Your task to perform on an android device: turn off picture-in-picture Image 0: 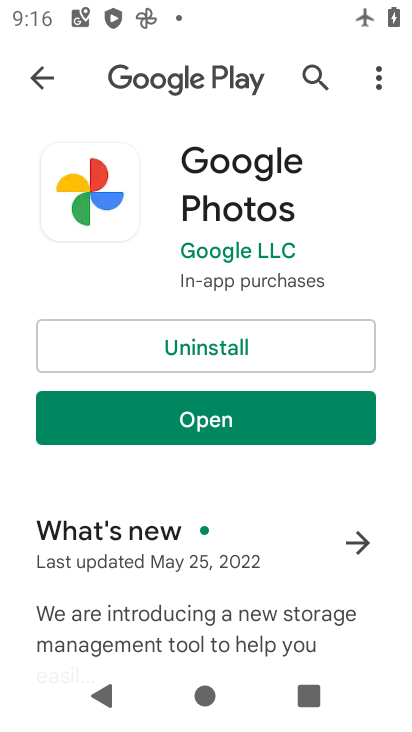
Step 0: press home button
Your task to perform on an android device: turn off picture-in-picture Image 1: 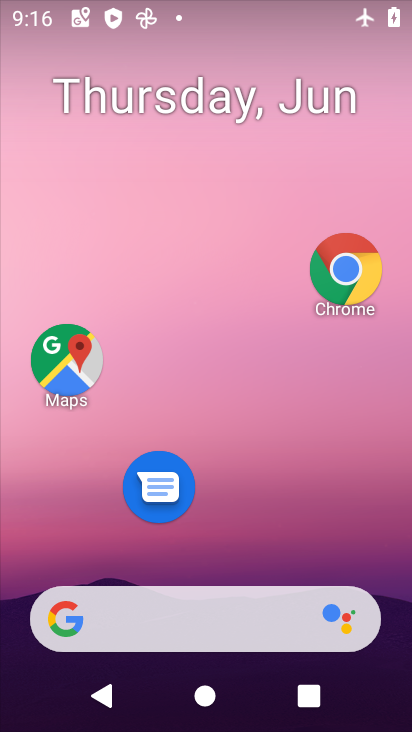
Step 1: drag from (224, 580) to (240, 182)
Your task to perform on an android device: turn off picture-in-picture Image 2: 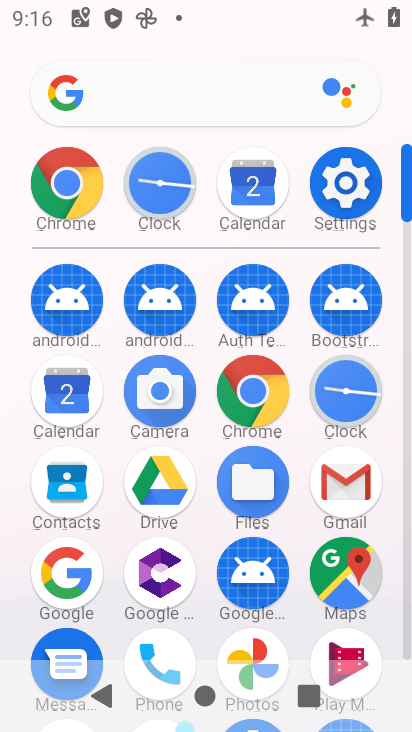
Step 2: click (351, 195)
Your task to perform on an android device: turn off picture-in-picture Image 3: 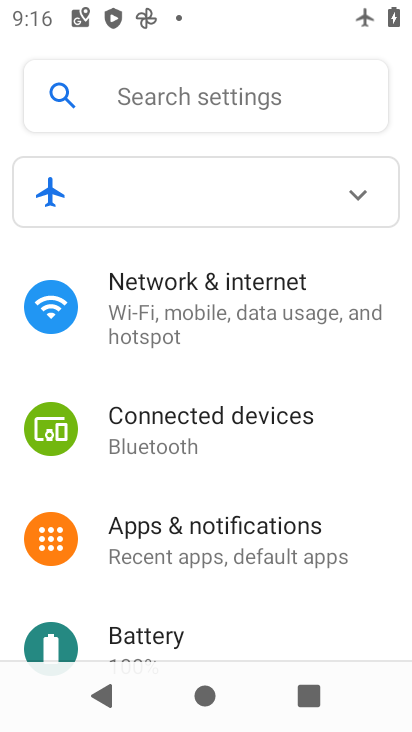
Step 3: drag from (189, 621) to (302, 339)
Your task to perform on an android device: turn off picture-in-picture Image 4: 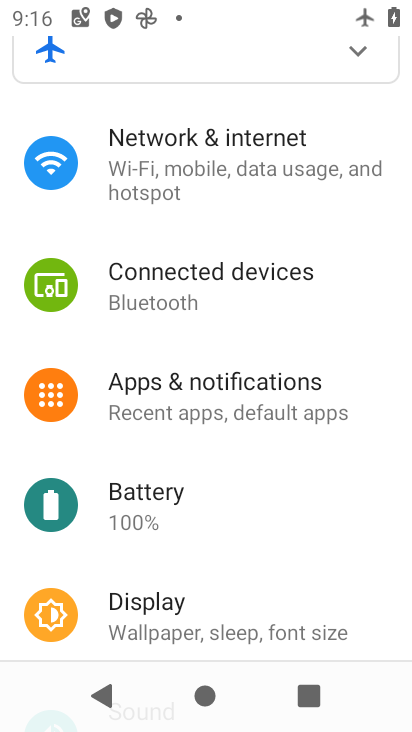
Step 4: click (256, 379)
Your task to perform on an android device: turn off picture-in-picture Image 5: 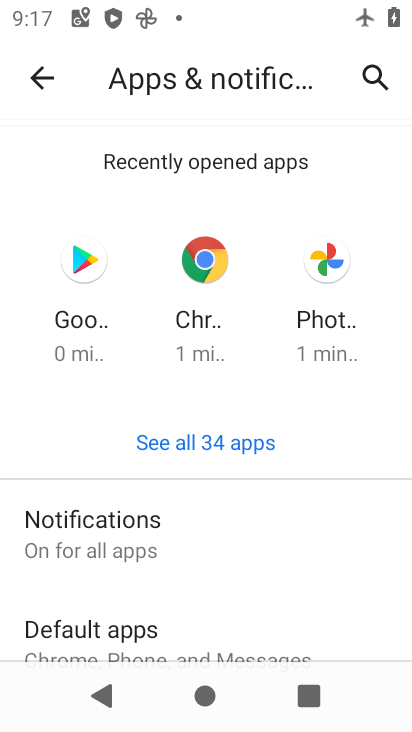
Step 5: drag from (151, 608) to (185, 13)
Your task to perform on an android device: turn off picture-in-picture Image 6: 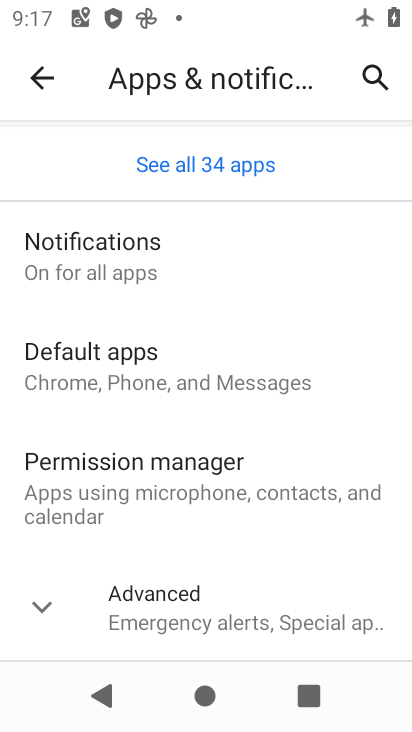
Step 6: click (119, 620)
Your task to perform on an android device: turn off picture-in-picture Image 7: 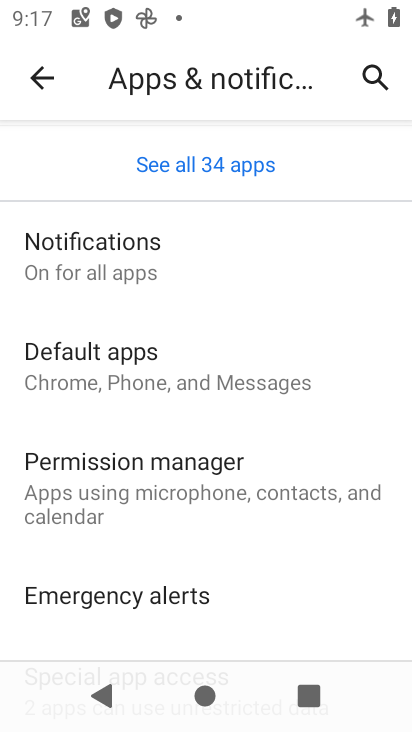
Step 7: drag from (179, 555) to (220, 344)
Your task to perform on an android device: turn off picture-in-picture Image 8: 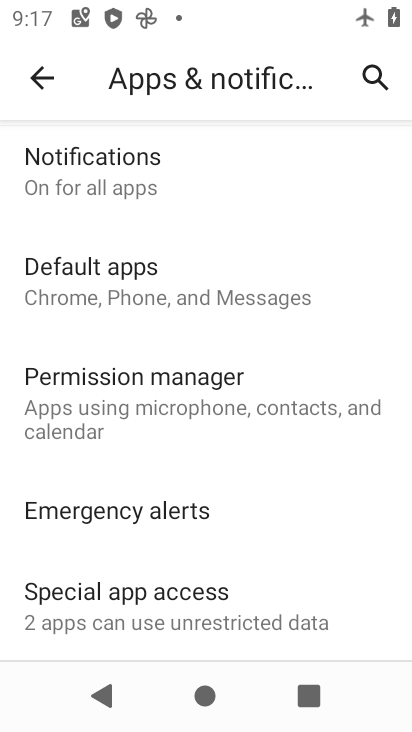
Step 8: click (180, 620)
Your task to perform on an android device: turn off picture-in-picture Image 9: 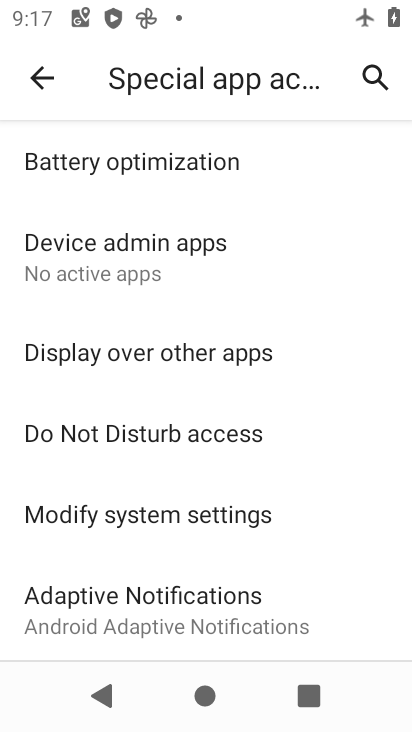
Step 9: drag from (197, 582) to (258, 59)
Your task to perform on an android device: turn off picture-in-picture Image 10: 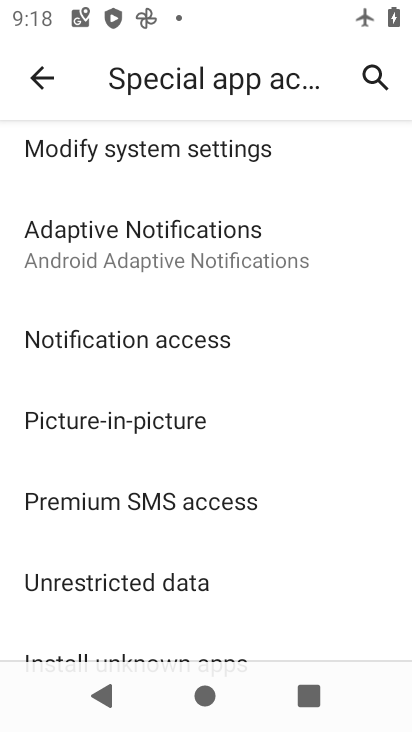
Step 10: click (180, 423)
Your task to perform on an android device: turn off picture-in-picture Image 11: 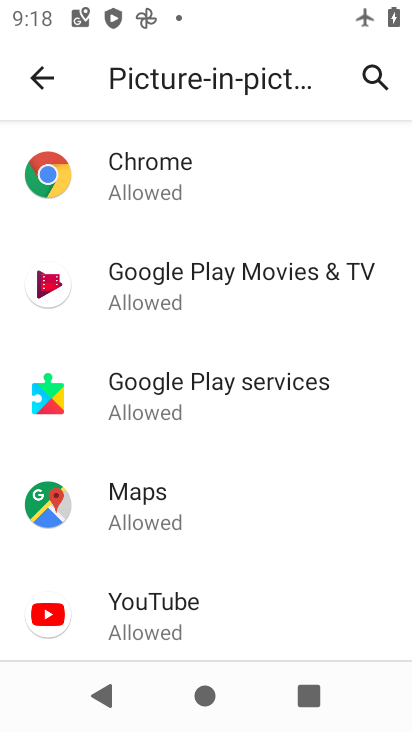
Step 11: task complete